Your task to perform on an android device: Open ESPN.com Image 0: 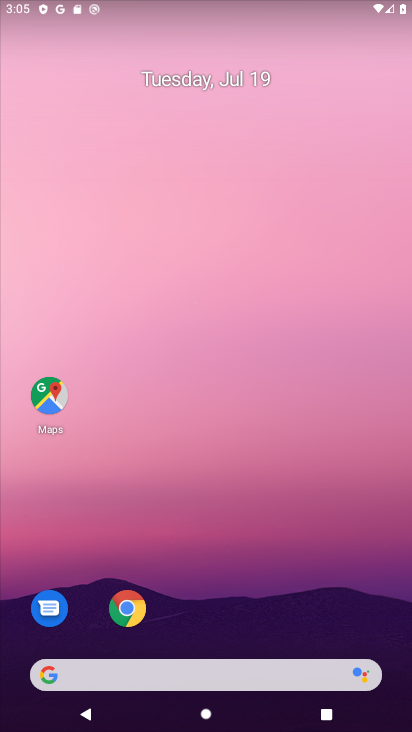
Step 0: click (284, 119)
Your task to perform on an android device: Open ESPN.com Image 1: 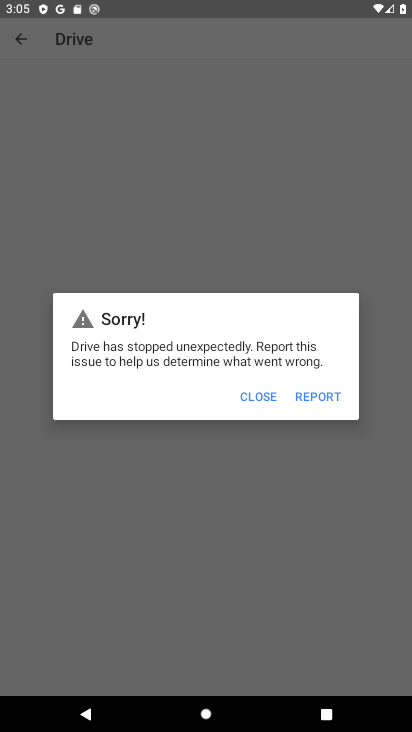
Step 1: press home button
Your task to perform on an android device: Open ESPN.com Image 2: 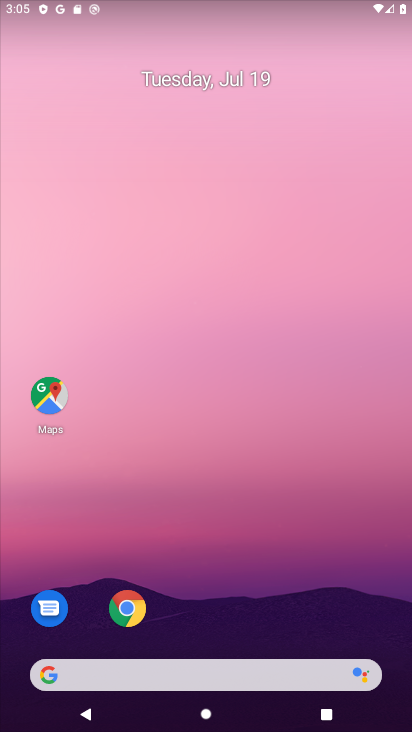
Step 2: click (126, 610)
Your task to perform on an android device: Open ESPN.com Image 3: 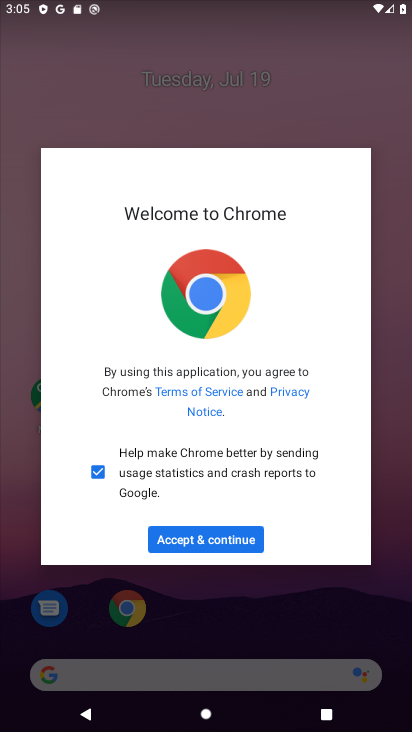
Step 3: click (184, 536)
Your task to perform on an android device: Open ESPN.com Image 4: 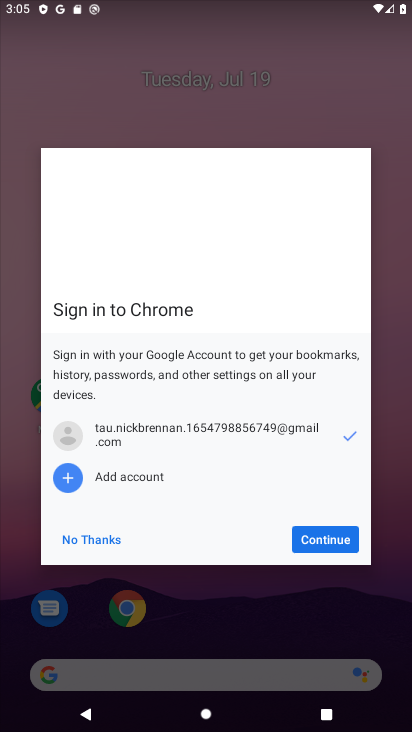
Step 4: click (338, 533)
Your task to perform on an android device: Open ESPN.com Image 5: 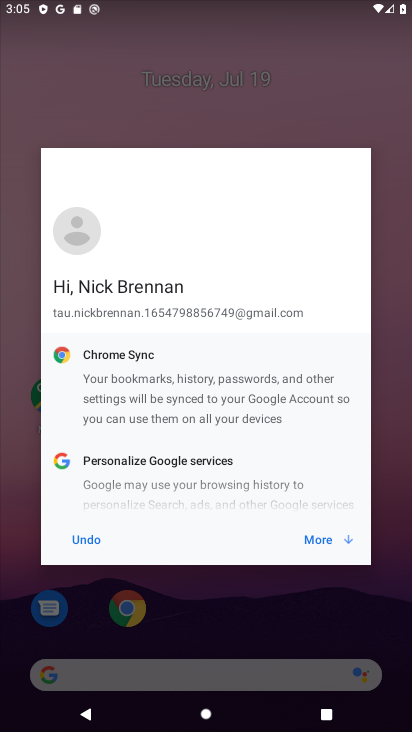
Step 5: click (338, 533)
Your task to perform on an android device: Open ESPN.com Image 6: 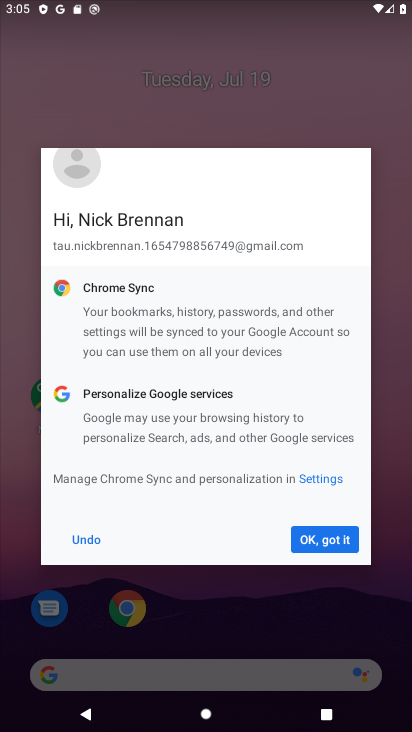
Step 6: click (338, 533)
Your task to perform on an android device: Open ESPN.com Image 7: 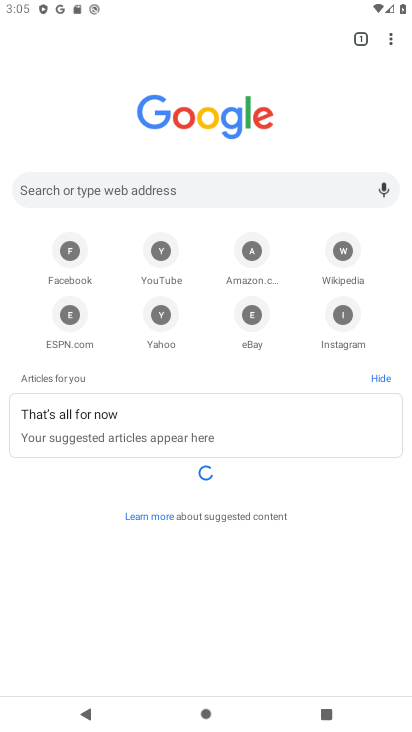
Step 7: click (74, 325)
Your task to perform on an android device: Open ESPN.com Image 8: 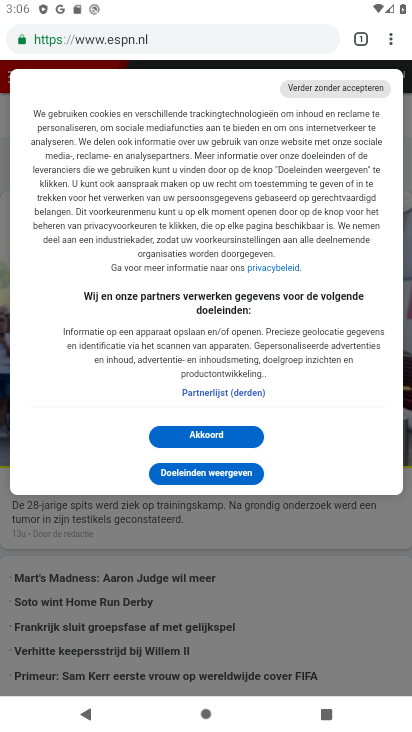
Step 8: task complete